Your task to perform on an android device: empty trash in google photos Image 0: 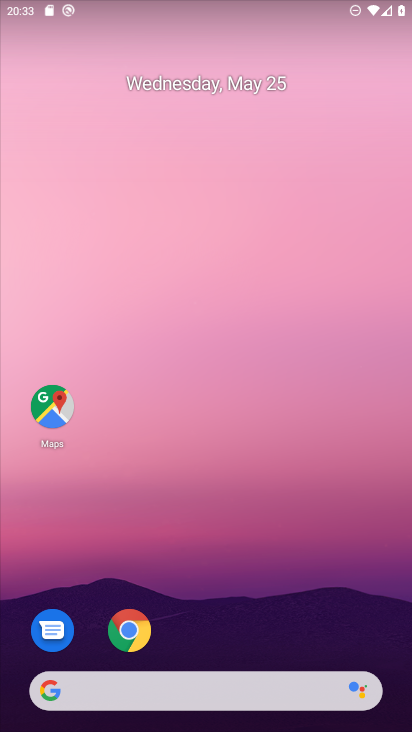
Step 0: drag from (257, 636) to (278, 82)
Your task to perform on an android device: empty trash in google photos Image 1: 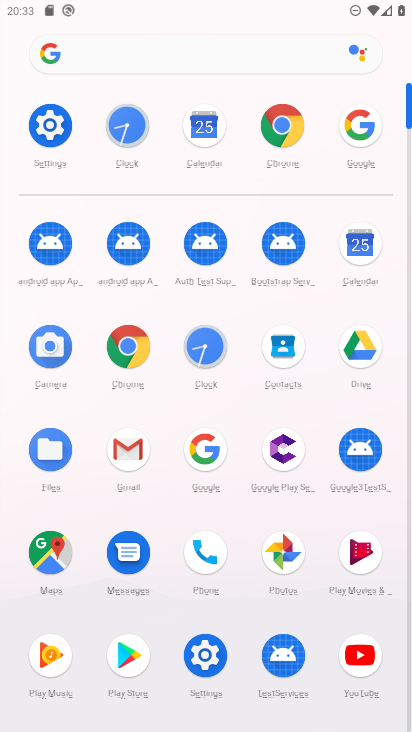
Step 1: click (283, 555)
Your task to perform on an android device: empty trash in google photos Image 2: 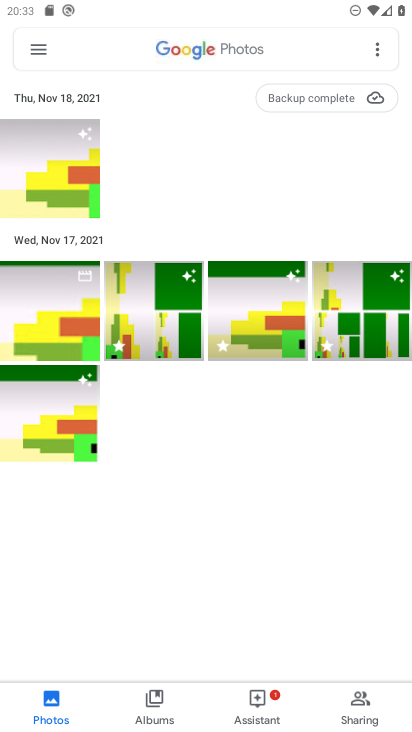
Step 2: click (39, 58)
Your task to perform on an android device: empty trash in google photos Image 3: 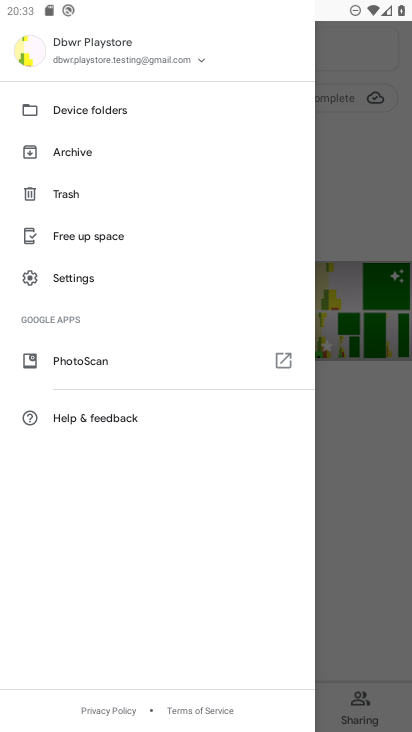
Step 3: click (82, 193)
Your task to perform on an android device: empty trash in google photos Image 4: 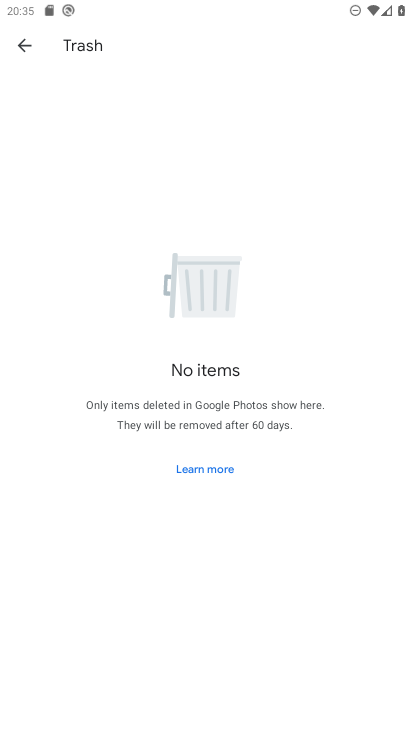
Step 4: task complete